Your task to perform on an android device: turn on showing notifications on the lock screen Image 0: 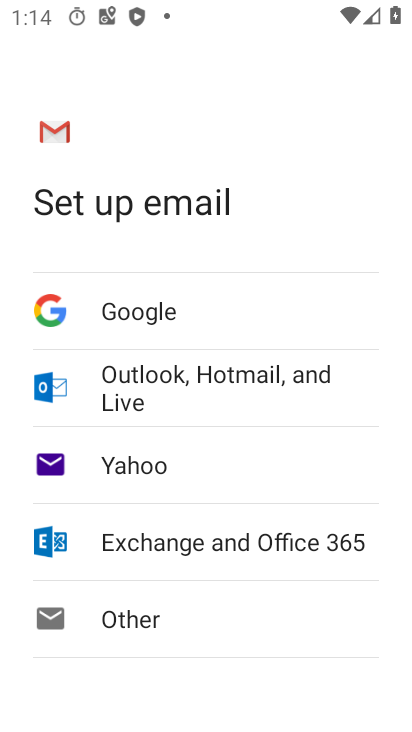
Step 0: press home button
Your task to perform on an android device: turn on showing notifications on the lock screen Image 1: 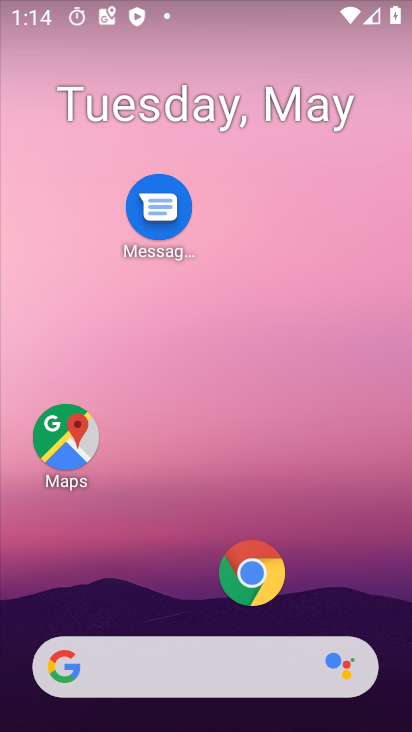
Step 1: drag from (197, 547) to (254, 3)
Your task to perform on an android device: turn on showing notifications on the lock screen Image 2: 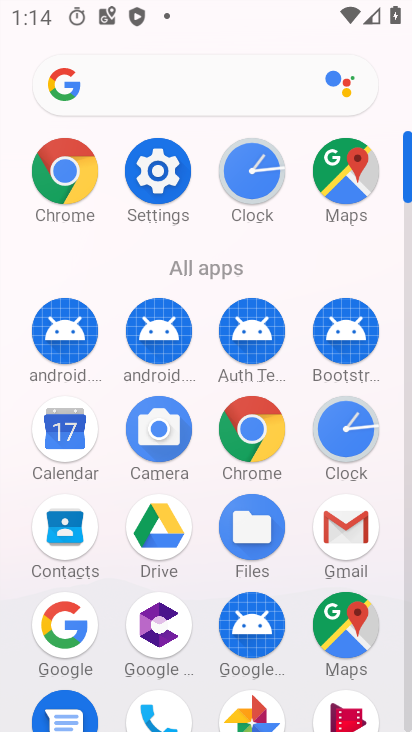
Step 2: click (158, 178)
Your task to perform on an android device: turn on showing notifications on the lock screen Image 3: 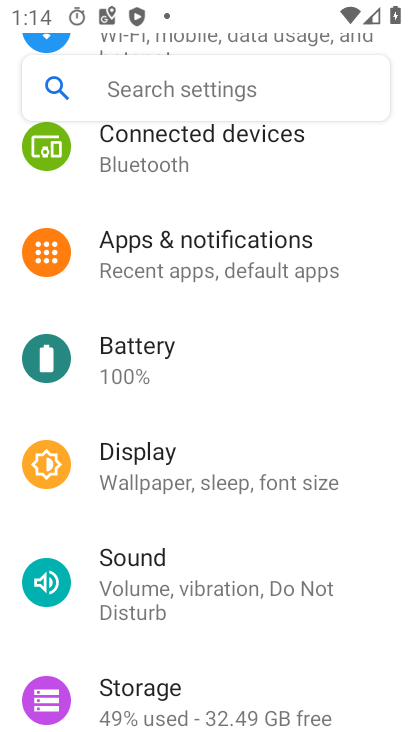
Step 3: click (216, 262)
Your task to perform on an android device: turn on showing notifications on the lock screen Image 4: 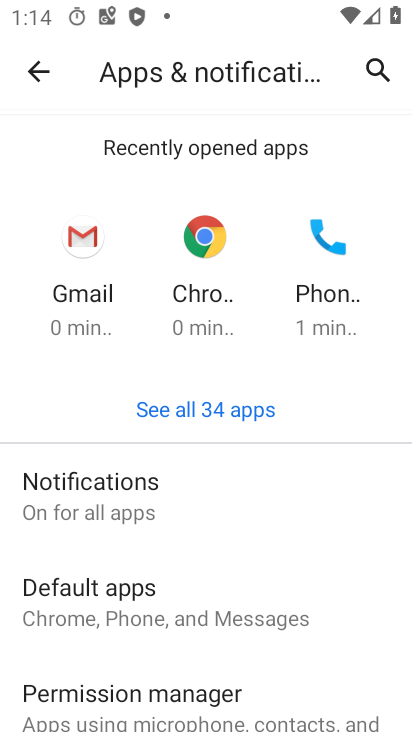
Step 4: click (180, 503)
Your task to perform on an android device: turn on showing notifications on the lock screen Image 5: 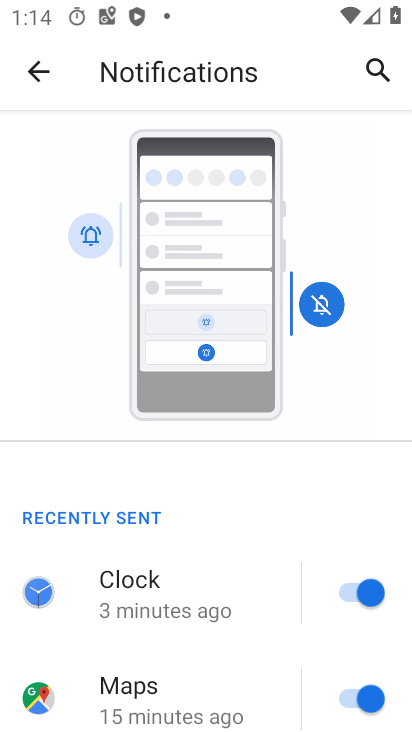
Step 5: drag from (212, 659) to (255, 185)
Your task to perform on an android device: turn on showing notifications on the lock screen Image 6: 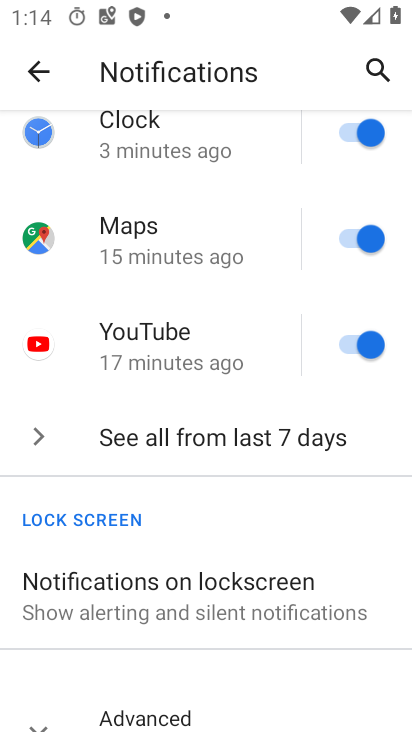
Step 6: click (208, 622)
Your task to perform on an android device: turn on showing notifications on the lock screen Image 7: 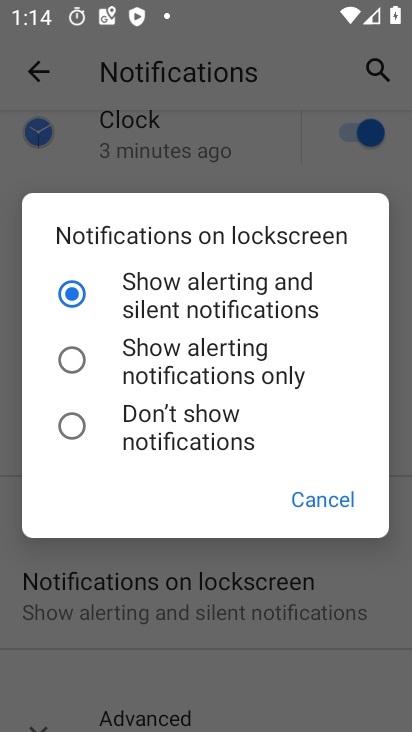
Step 7: task complete